Your task to perform on an android device: move an email to a new category in the gmail app Image 0: 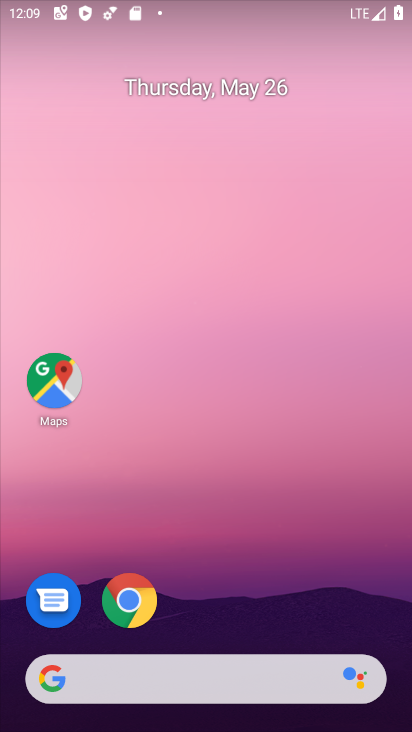
Step 0: drag from (247, 574) to (238, 128)
Your task to perform on an android device: move an email to a new category in the gmail app Image 1: 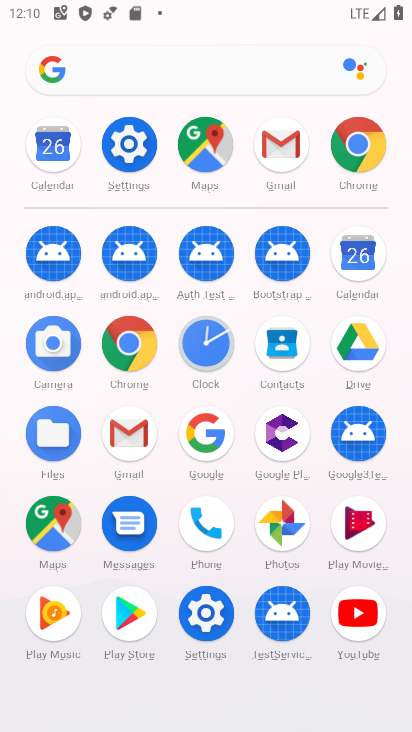
Step 1: click (134, 441)
Your task to perform on an android device: move an email to a new category in the gmail app Image 2: 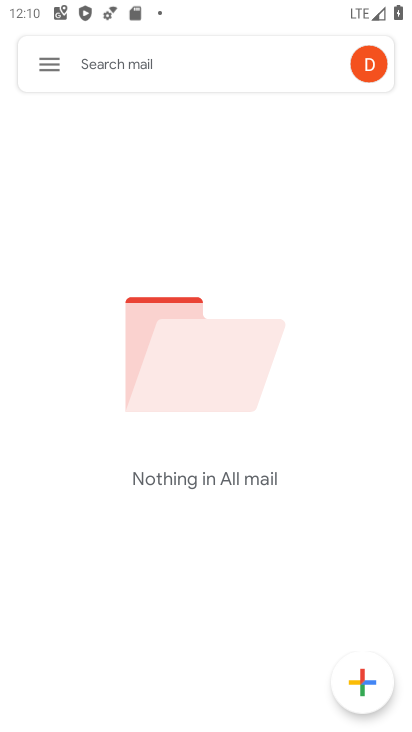
Step 2: click (38, 56)
Your task to perform on an android device: move an email to a new category in the gmail app Image 3: 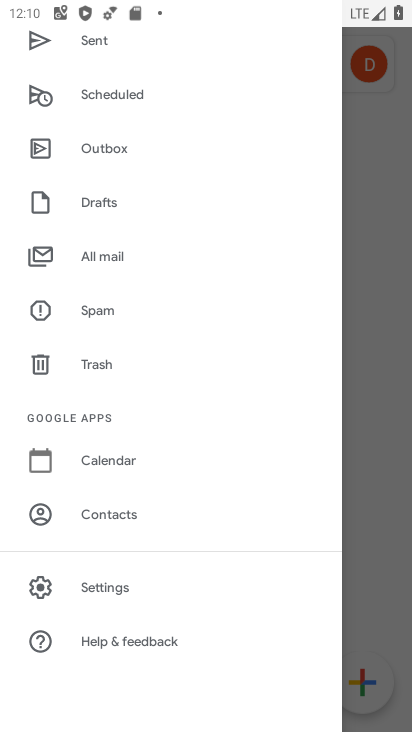
Step 3: click (99, 265)
Your task to perform on an android device: move an email to a new category in the gmail app Image 4: 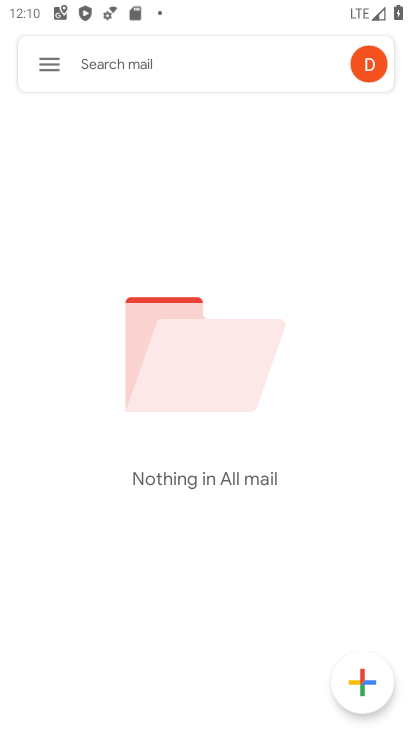
Step 4: task complete